Your task to perform on an android device: turn off smart reply in the gmail app Image 0: 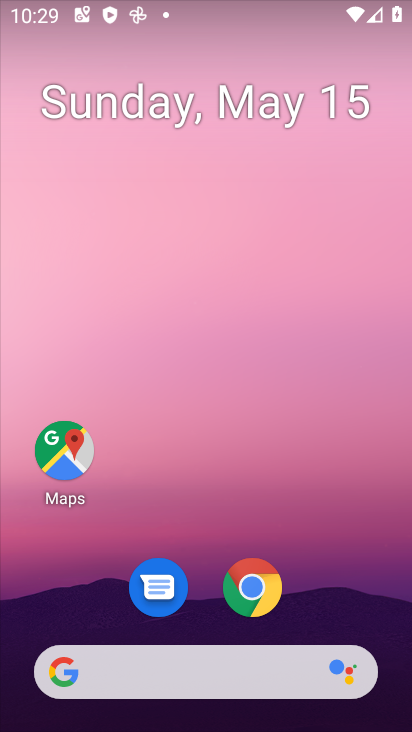
Step 0: drag from (376, 638) to (316, 89)
Your task to perform on an android device: turn off smart reply in the gmail app Image 1: 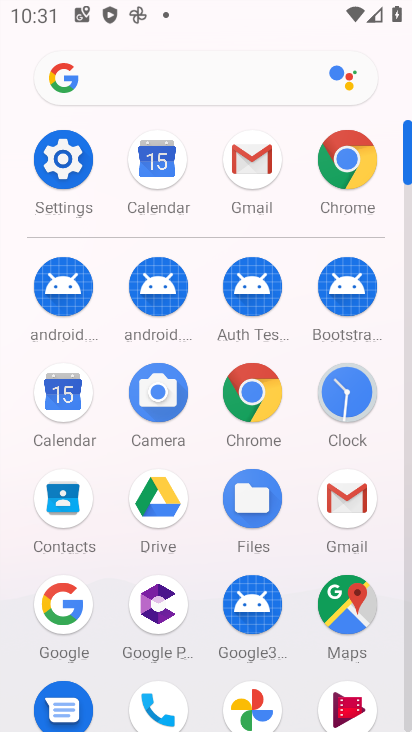
Step 1: click (349, 504)
Your task to perform on an android device: turn off smart reply in the gmail app Image 2: 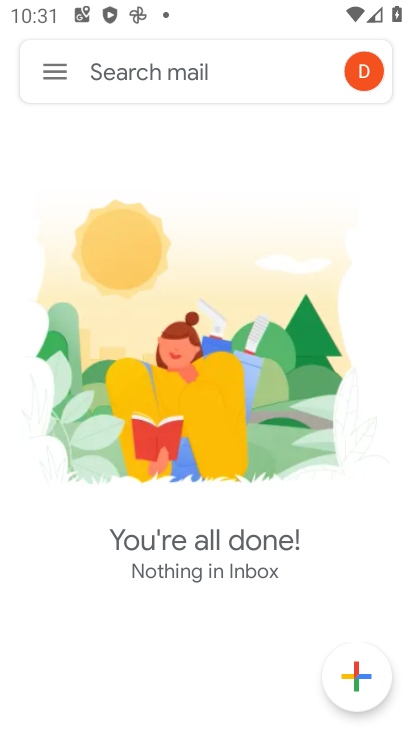
Step 2: click (47, 64)
Your task to perform on an android device: turn off smart reply in the gmail app Image 3: 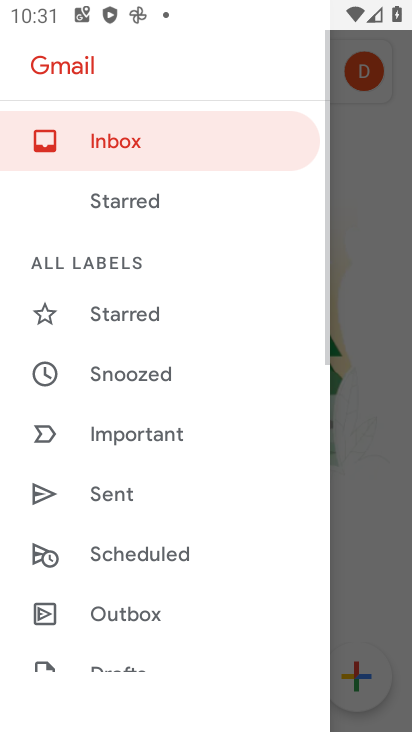
Step 3: drag from (132, 663) to (181, 154)
Your task to perform on an android device: turn off smart reply in the gmail app Image 4: 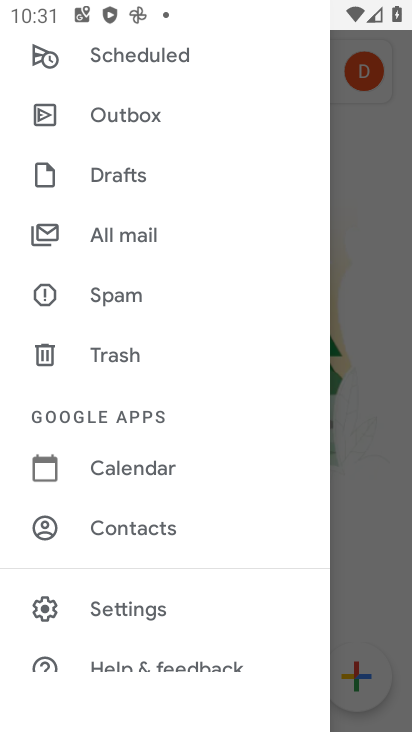
Step 4: click (174, 604)
Your task to perform on an android device: turn off smart reply in the gmail app Image 5: 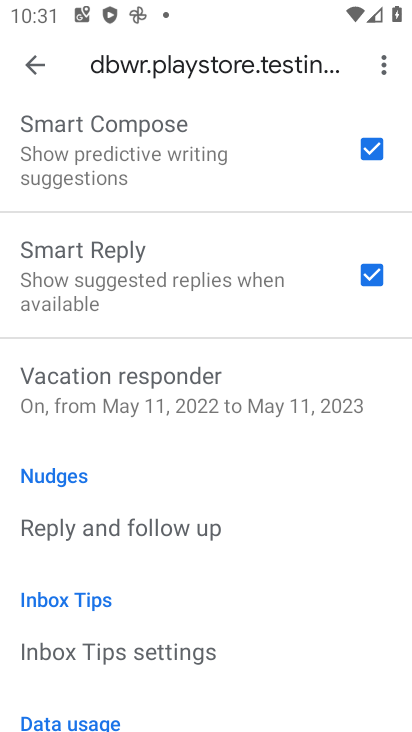
Step 5: click (211, 274)
Your task to perform on an android device: turn off smart reply in the gmail app Image 6: 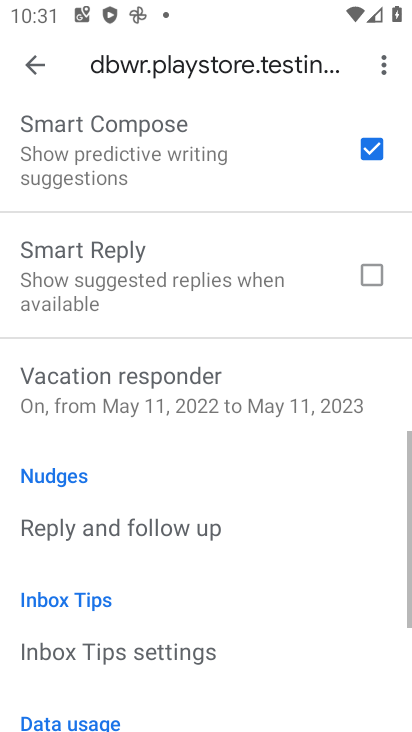
Step 6: task complete